Your task to perform on an android device: Search for sushi restaurants on Maps Image 0: 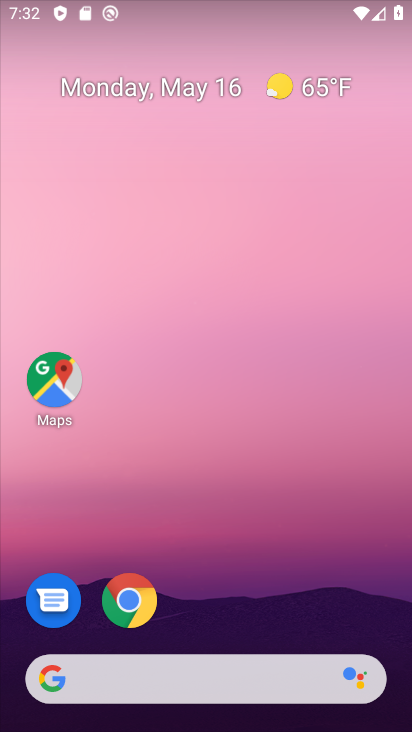
Step 0: drag from (237, 629) to (379, 146)
Your task to perform on an android device: Search for sushi restaurants on Maps Image 1: 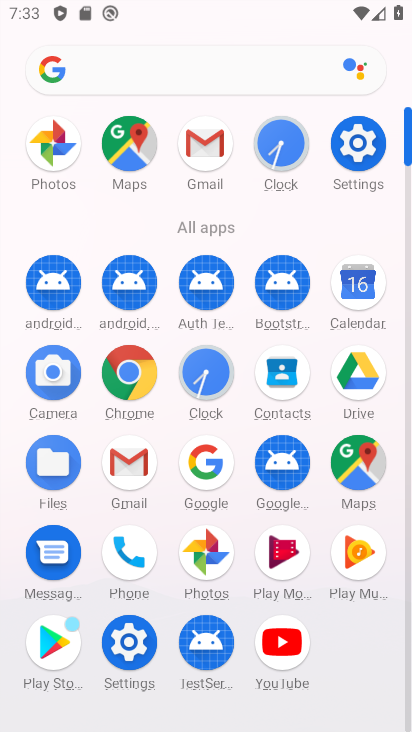
Step 1: click (353, 466)
Your task to perform on an android device: Search for sushi restaurants on Maps Image 2: 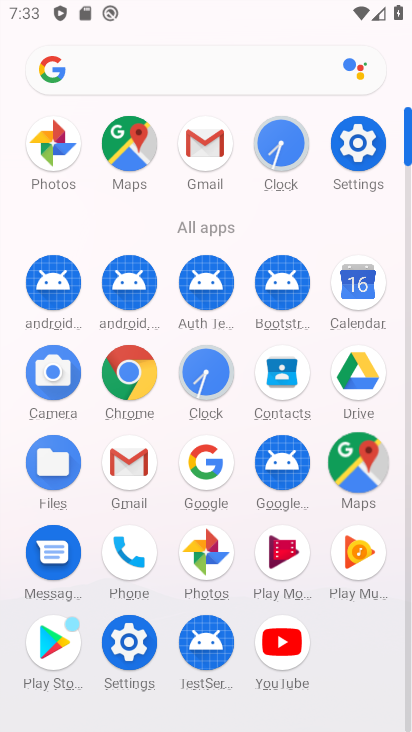
Step 2: click (353, 466)
Your task to perform on an android device: Search for sushi restaurants on Maps Image 3: 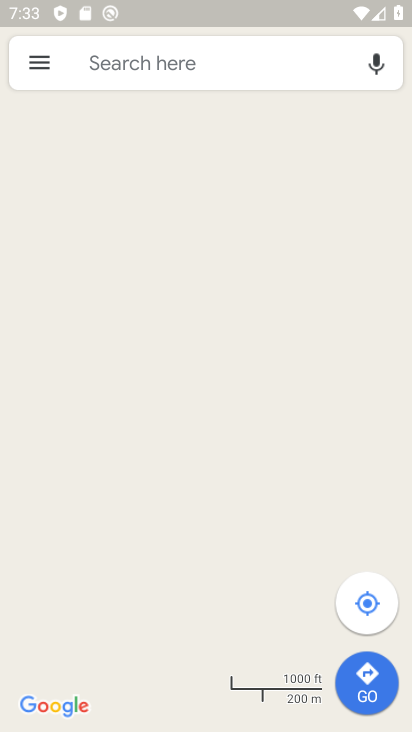
Step 3: click (217, 70)
Your task to perform on an android device: Search for sushi restaurants on Maps Image 4: 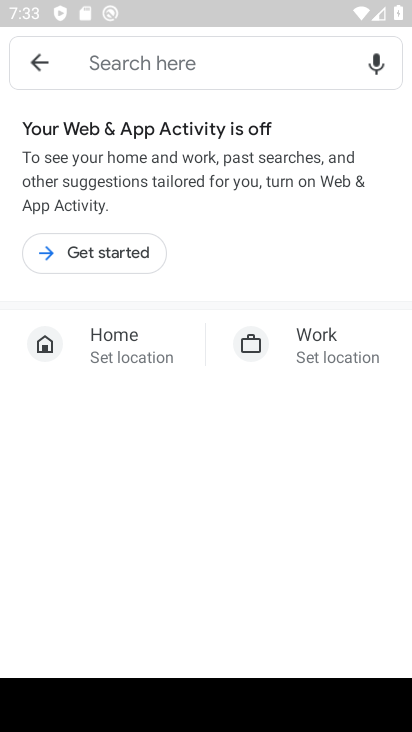
Step 4: click (200, 61)
Your task to perform on an android device: Search for sushi restaurants on Maps Image 5: 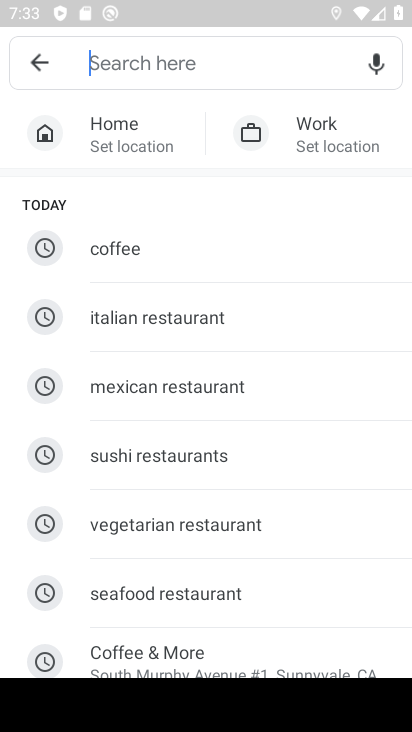
Step 5: click (127, 447)
Your task to perform on an android device: Search for sushi restaurants on Maps Image 6: 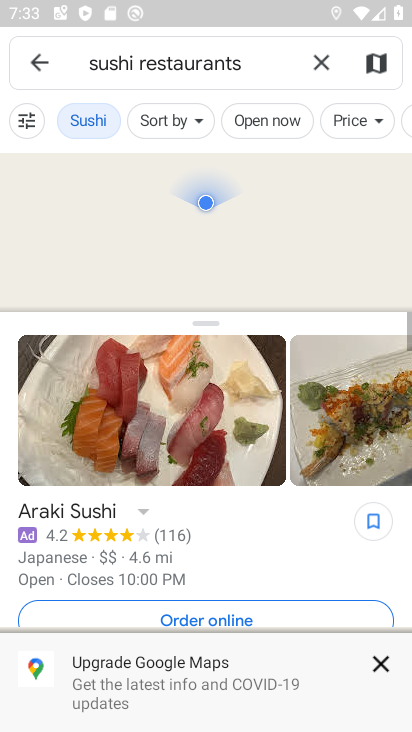
Step 6: task complete